Your task to perform on an android device: Go to Google maps Image 0: 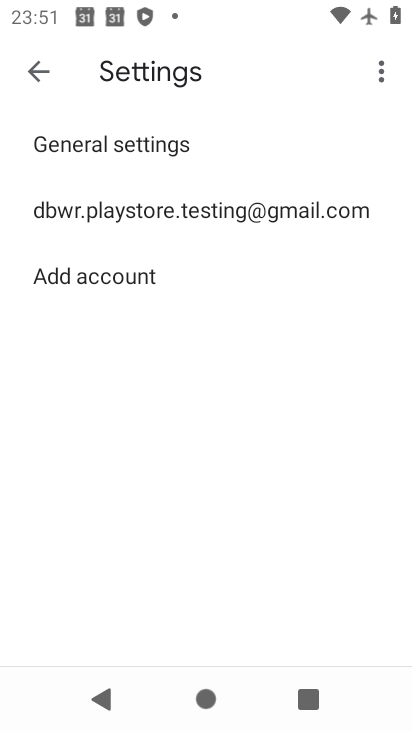
Step 0: press home button
Your task to perform on an android device: Go to Google maps Image 1: 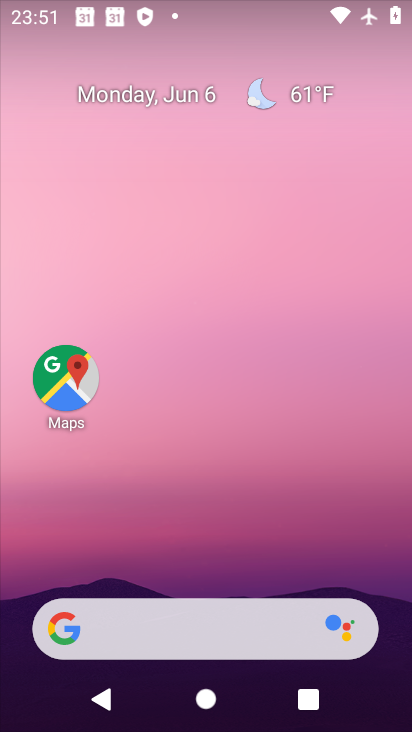
Step 1: click (66, 382)
Your task to perform on an android device: Go to Google maps Image 2: 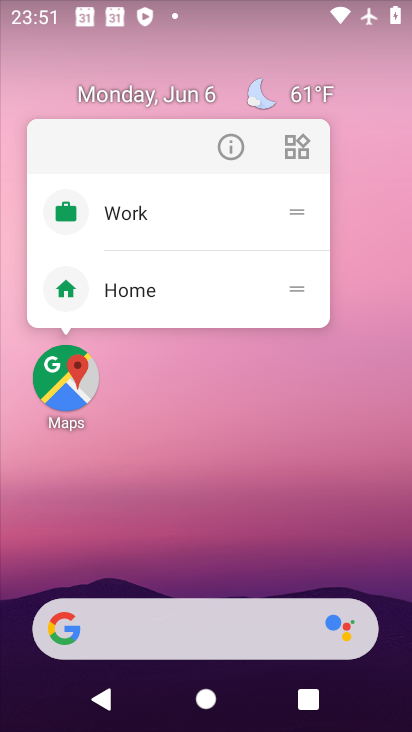
Step 2: click (68, 381)
Your task to perform on an android device: Go to Google maps Image 3: 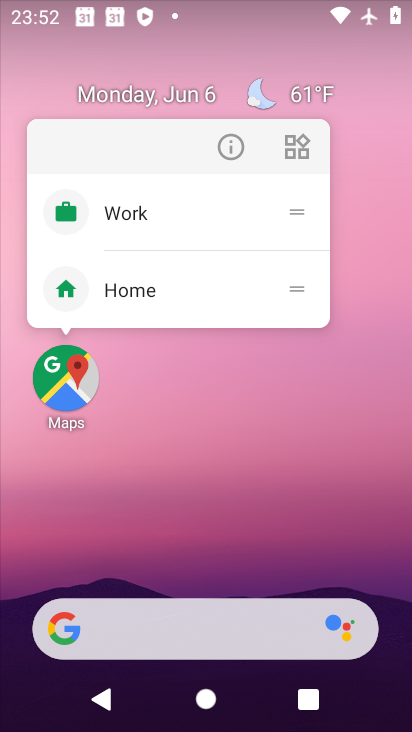
Step 3: click (68, 382)
Your task to perform on an android device: Go to Google maps Image 4: 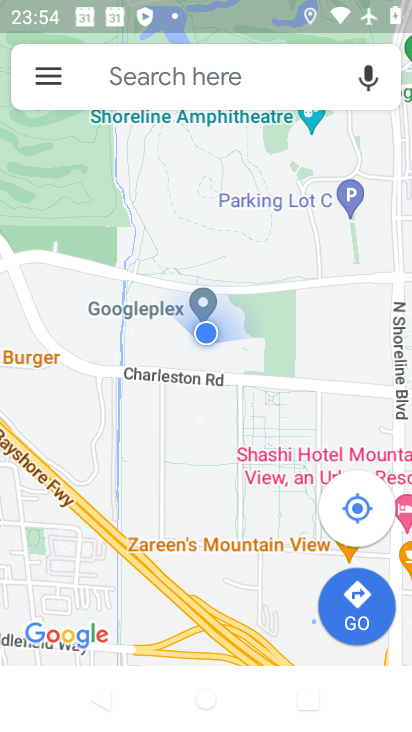
Step 4: task complete